Your task to perform on an android device: turn smart compose on in the gmail app Image 0: 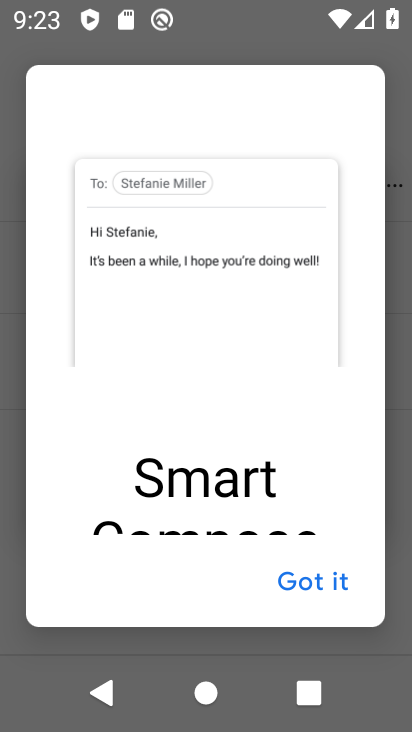
Step 0: press home button
Your task to perform on an android device: turn smart compose on in the gmail app Image 1: 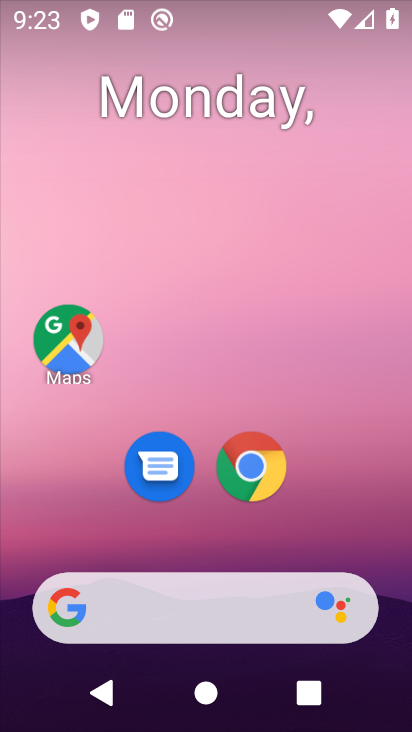
Step 1: drag from (349, 530) to (287, 97)
Your task to perform on an android device: turn smart compose on in the gmail app Image 2: 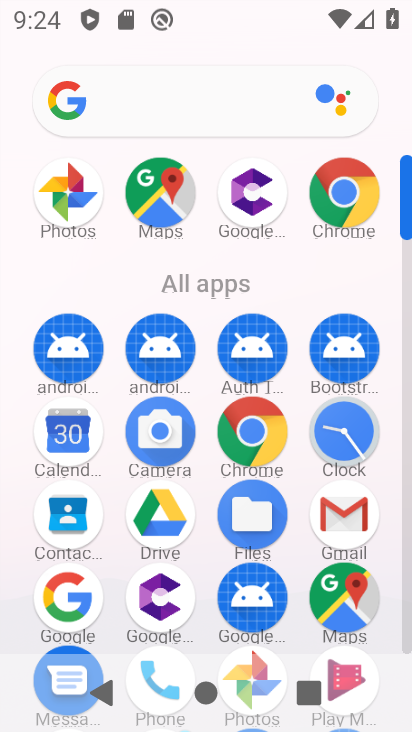
Step 2: click (351, 507)
Your task to perform on an android device: turn smart compose on in the gmail app Image 3: 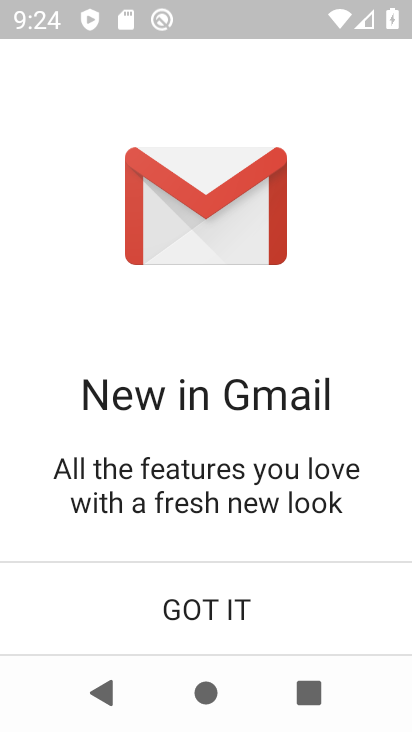
Step 3: click (247, 613)
Your task to perform on an android device: turn smart compose on in the gmail app Image 4: 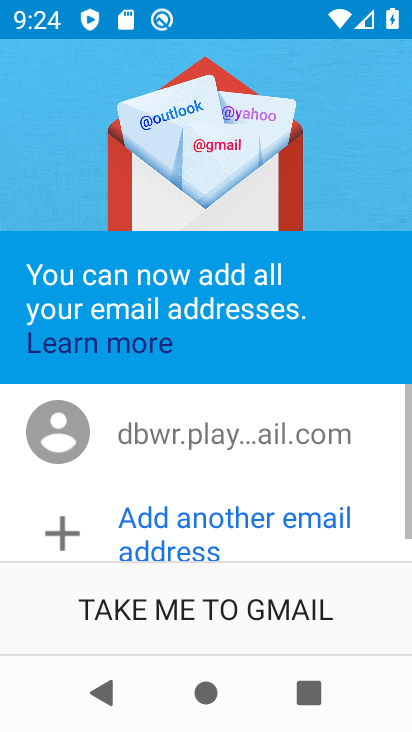
Step 4: click (247, 613)
Your task to perform on an android device: turn smart compose on in the gmail app Image 5: 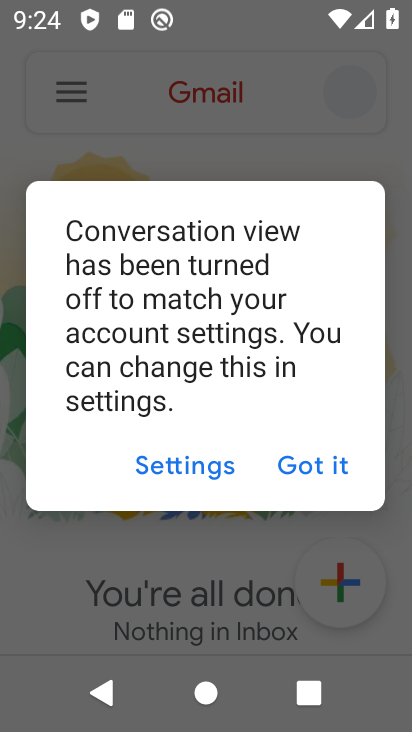
Step 5: click (311, 455)
Your task to perform on an android device: turn smart compose on in the gmail app Image 6: 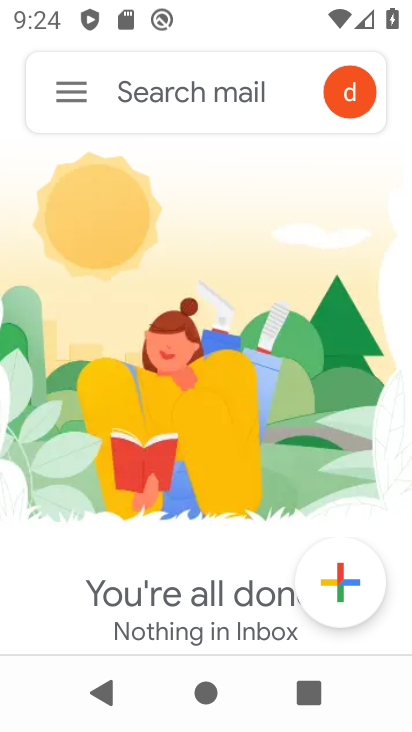
Step 6: click (61, 99)
Your task to perform on an android device: turn smart compose on in the gmail app Image 7: 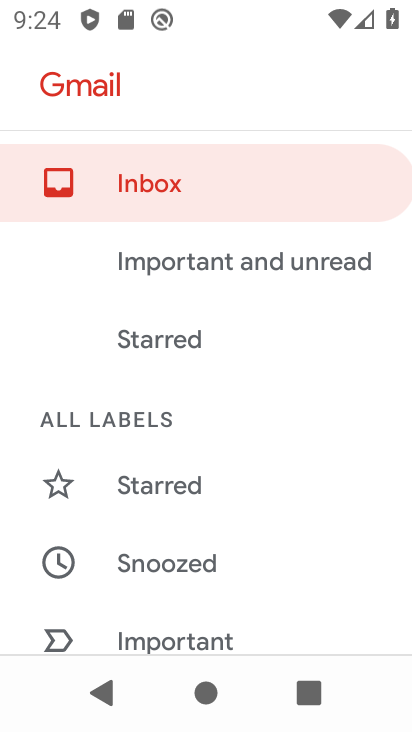
Step 7: drag from (315, 625) to (324, 117)
Your task to perform on an android device: turn smart compose on in the gmail app Image 8: 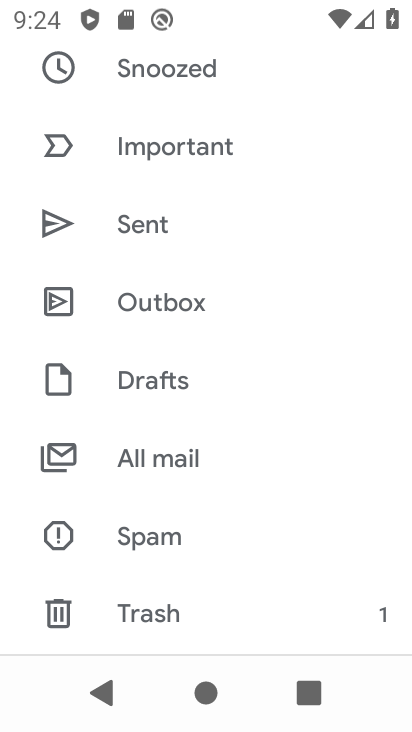
Step 8: drag from (211, 567) to (251, 68)
Your task to perform on an android device: turn smart compose on in the gmail app Image 9: 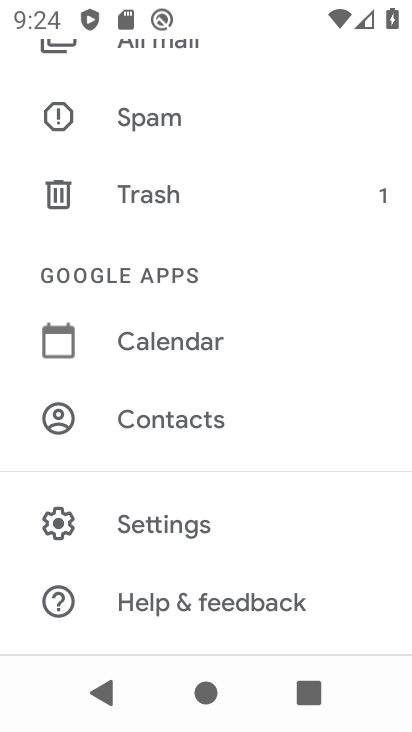
Step 9: click (145, 521)
Your task to perform on an android device: turn smart compose on in the gmail app Image 10: 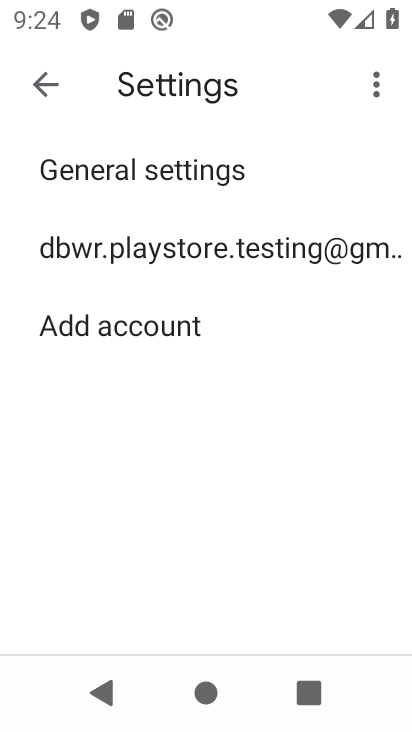
Step 10: click (248, 259)
Your task to perform on an android device: turn smart compose on in the gmail app Image 11: 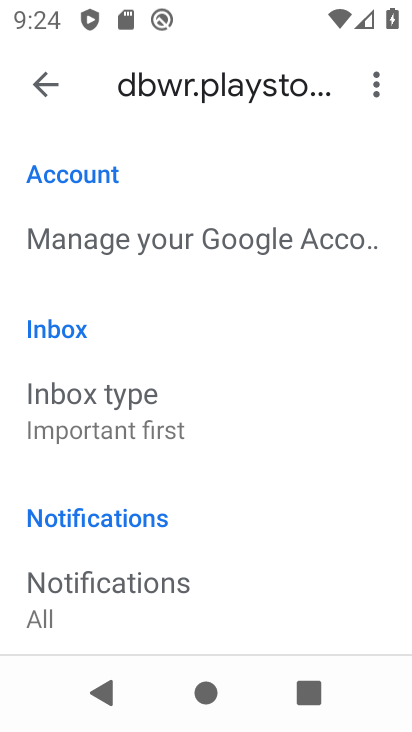
Step 11: task complete